Your task to perform on an android device: turn on improve location accuracy Image 0: 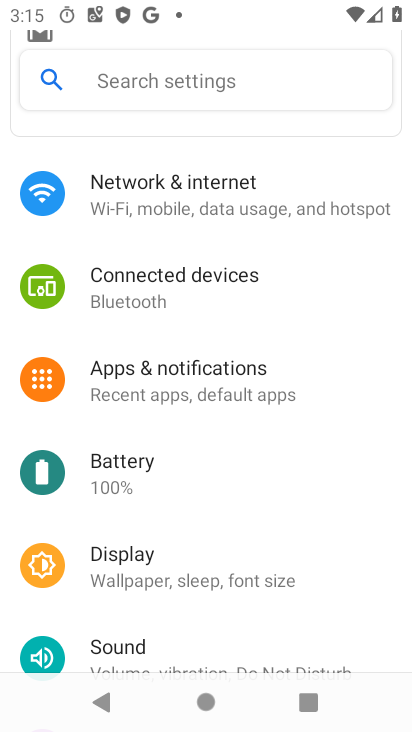
Step 0: drag from (160, 576) to (203, 224)
Your task to perform on an android device: turn on improve location accuracy Image 1: 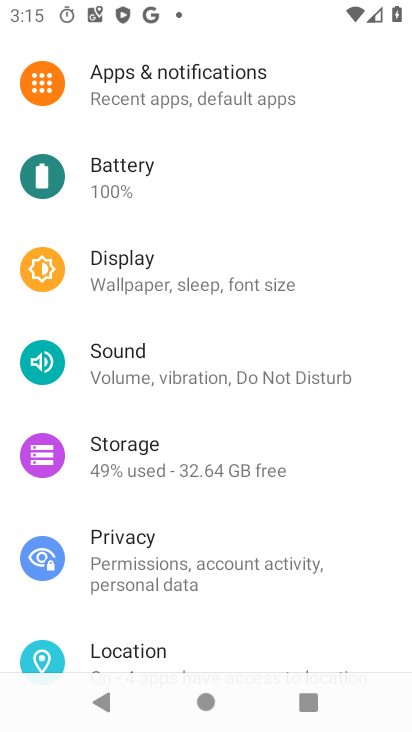
Step 1: drag from (155, 579) to (169, 287)
Your task to perform on an android device: turn on improve location accuracy Image 2: 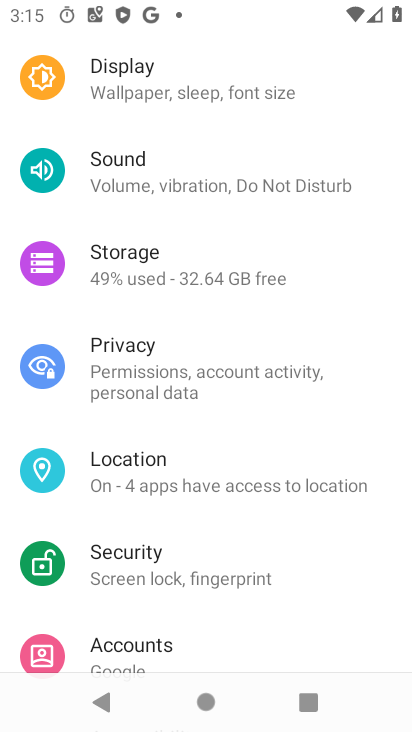
Step 2: click (149, 491)
Your task to perform on an android device: turn on improve location accuracy Image 3: 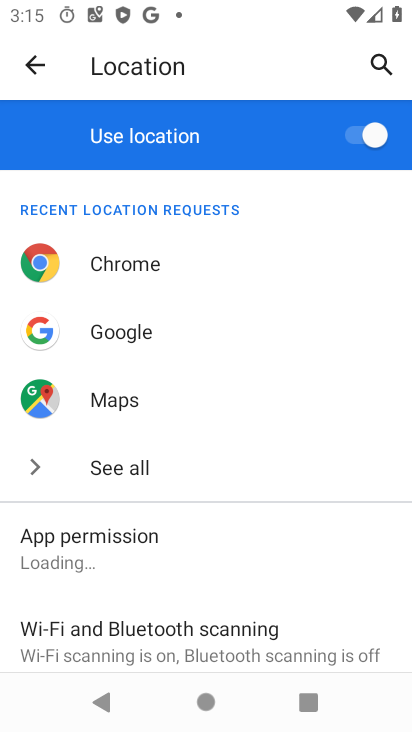
Step 3: drag from (206, 575) to (230, 342)
Your task to perform on an android device: turn on improve location accuracy Image 4: 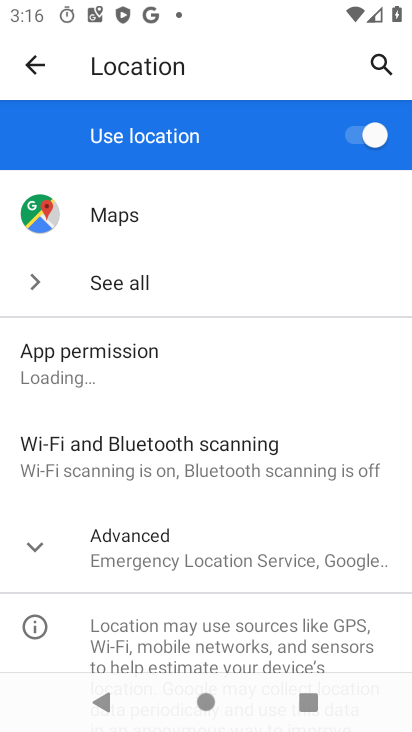
Step 4: click (155, 547)
Your task to perform on an android device: turn on improve location accuracy Image 5: 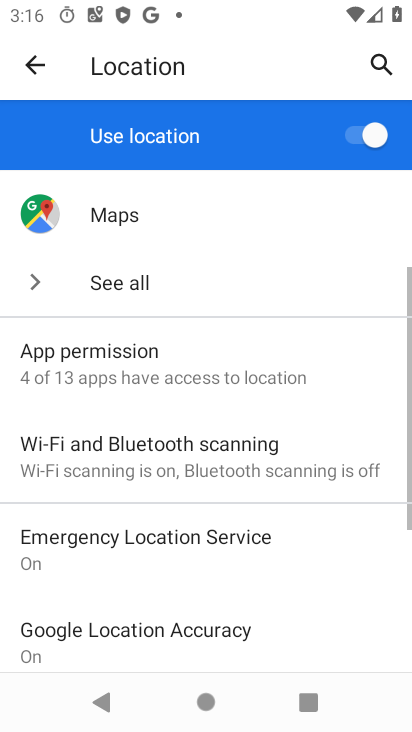
Step 5: drag from (173, 590) to (220, 264)
Your task to perform on an android device: turn on improve location accuracy Image 6: 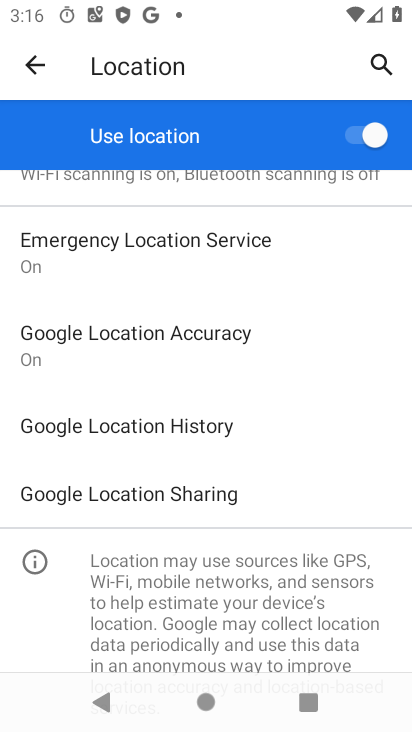
Step 6: click (175, 351)
Your task to perform on an android device: turn on improve location accuracy Image 7: 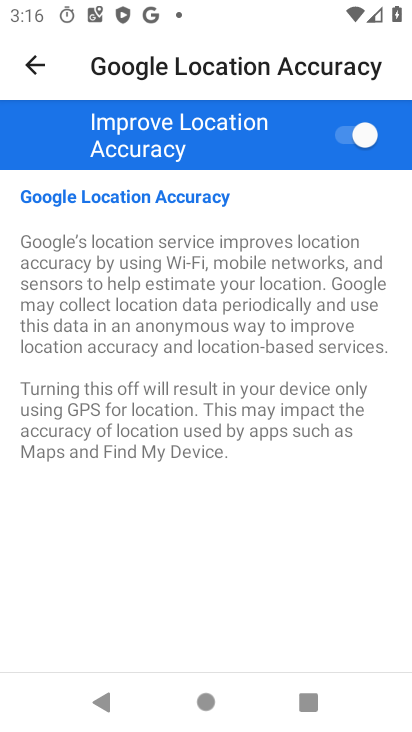
Step 7: task complete